Your task to perform on an android device: Show me productivity apps on the Play Store Image 0: 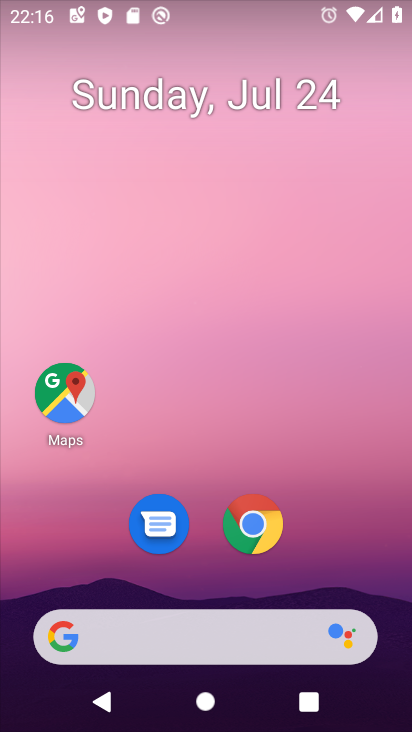
Step 0: drag from (205, 639) to (398, 102)
Your task to perform on an android device: Show me productivity apps on the Play Store Image 1: 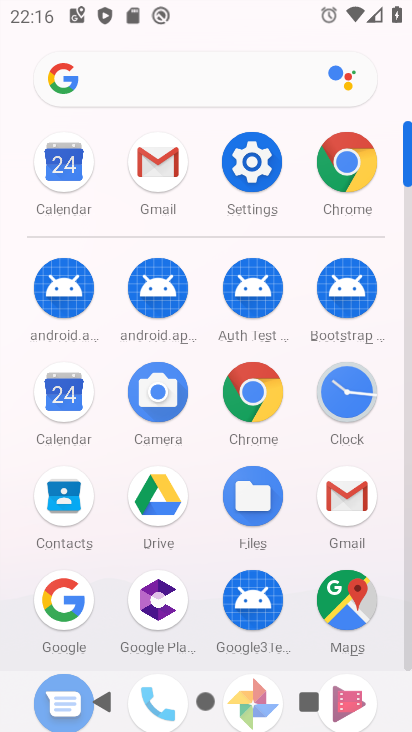
Step 1: drag from (207, 594) to (382, 108)
Your task to perform on an android device: Show me productivity apps on the Play Store Image 2: 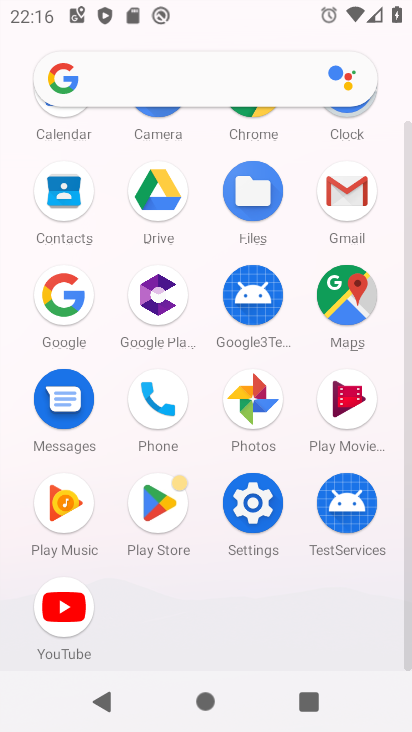
Step 2: click (162, 517)
Your task to perform on an android device: Show me productivity apps on the Play Store Image 3: 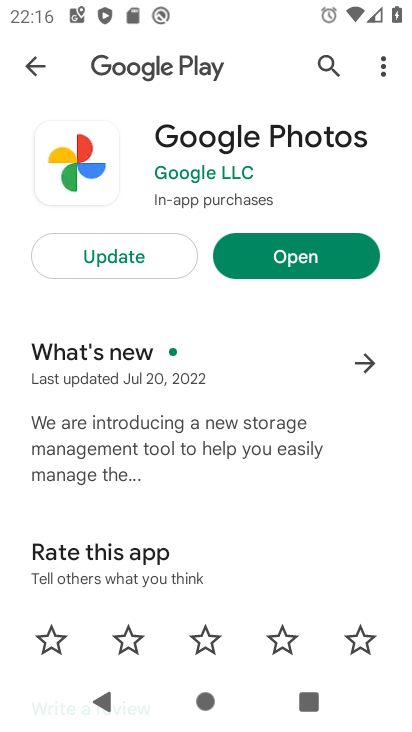
Step 3: click (27, 60)
Your task to perform on an android device: Show me productivity apps on the Play Store Image 4: 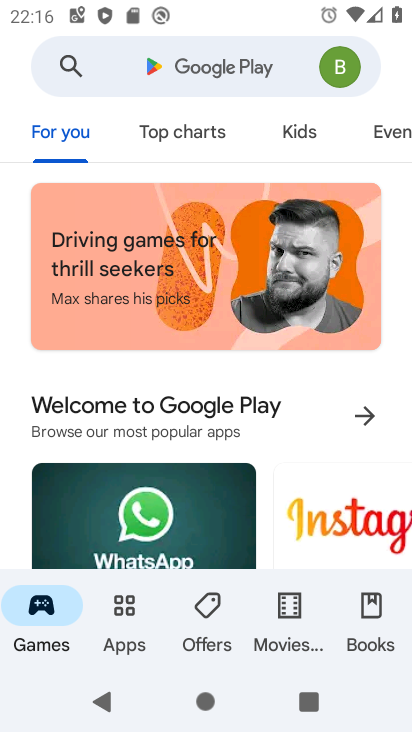
Step 4: click (125, 612)
Your task to perform on an android device: Show me productivity apps on the Play Store Image 5: 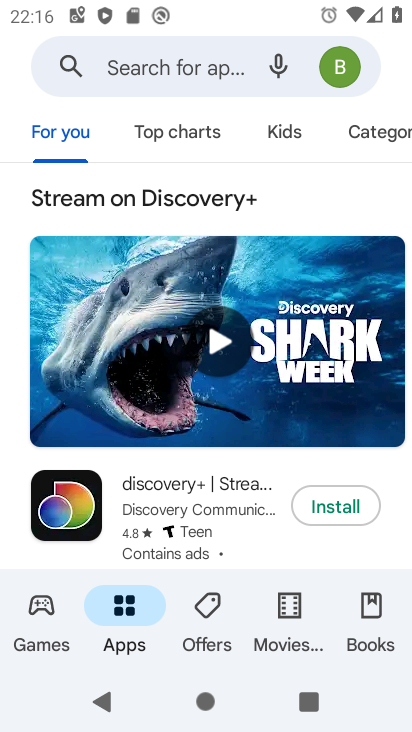
Step 5: click (363, 127)
Your task to perform on an android device: Show me productivity apps on the Play Store Image 6: 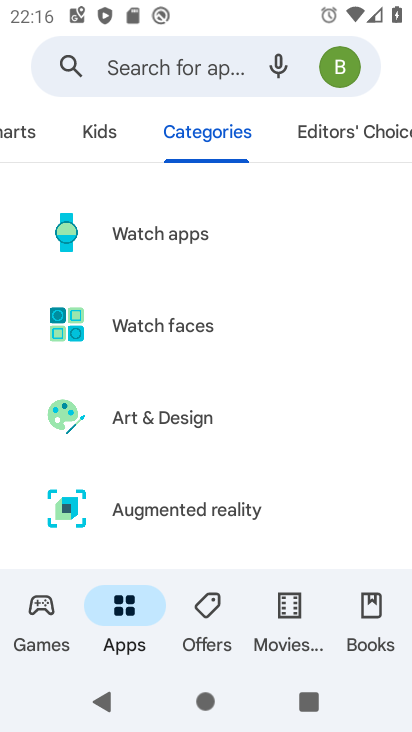
Step 6: drag from (260, 506) to (373, 96)
Your task to perform on an android device: Show me productivity apps on the Play Store Image 7: 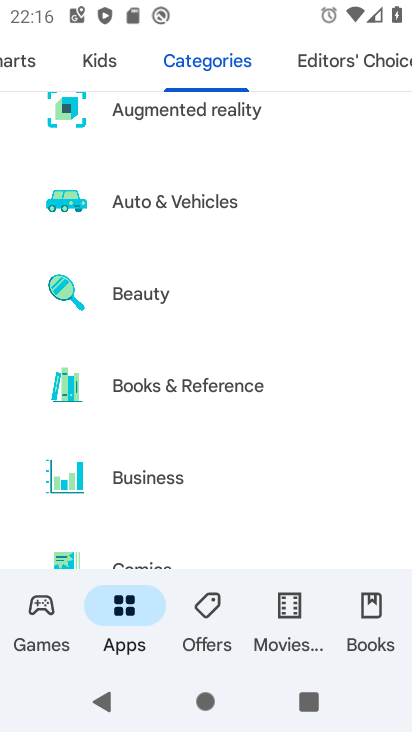
Step 7: drag from (249, 497) to (384, 60)
Your task to perform on an android device: Show me productivity apps on the Play Store Image 8: 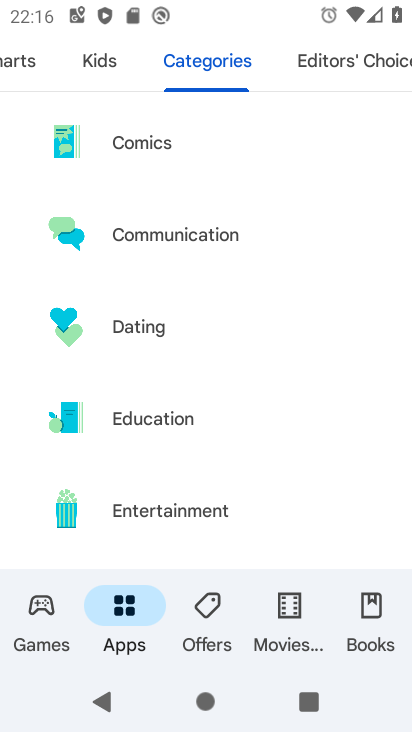
Step 8: drag from (208, 513) to (371, 63)
Your task to perform on an android device: Show me productivity apps on the Play Store Image 9: 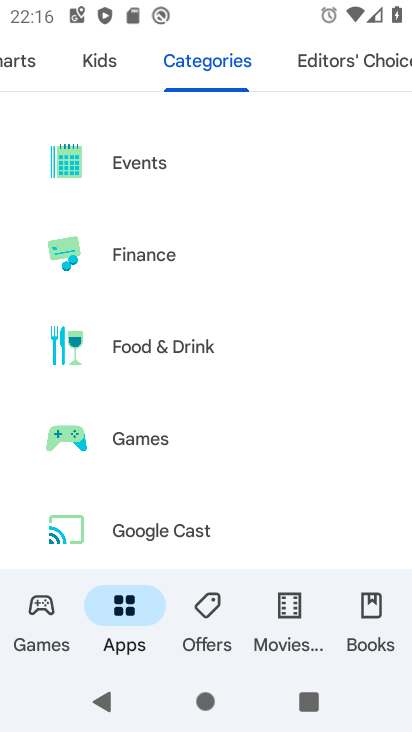
Step 9: drag from (200, 491) to (340, 63)
Your task to perform on an android device: Show me productivity apps on the Play Store Image 10: 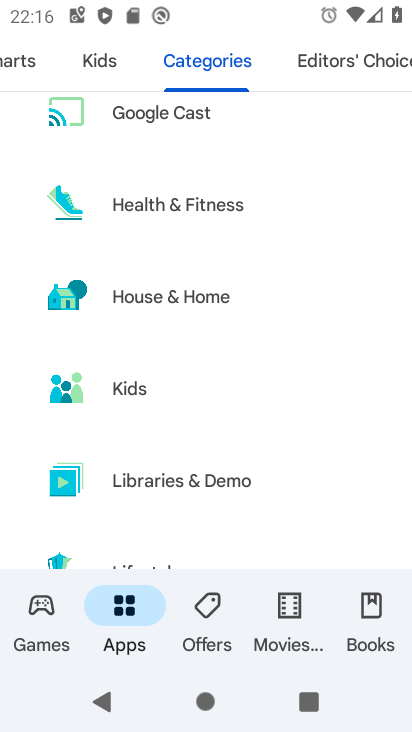
Step 10: drag from (219, 523) to (328, 102)
Your task to perform on an android device: Show me productivity apps on the Play Store Image 11: 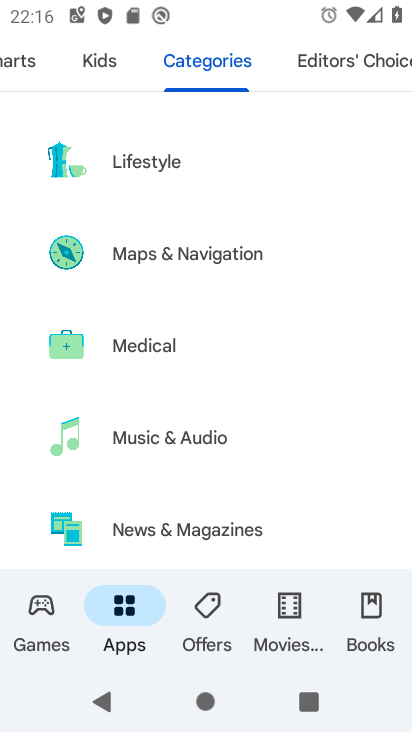
Step 11: drag from (221, 508) to (341, 64)
Your task to perform on an android device: Show me productivity apps on the Play Store Image 12: 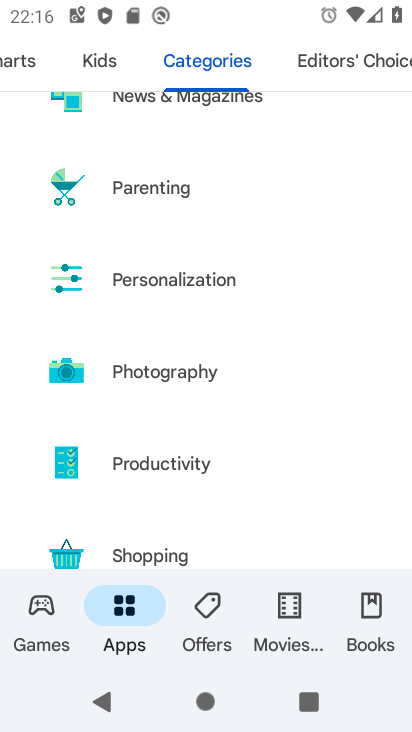
Step 12: click (174, 461)
Your task to perform on an android device: Show me productivity apps on the Play Store Image 13: 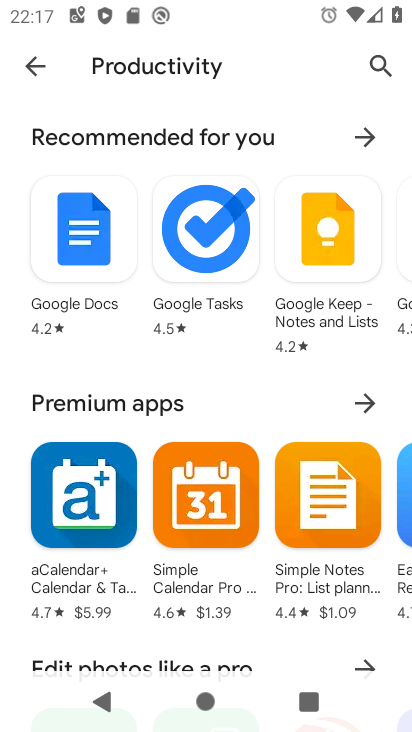
Step 13: task complete